Your task to perform on an android device: Open maps Image 0: 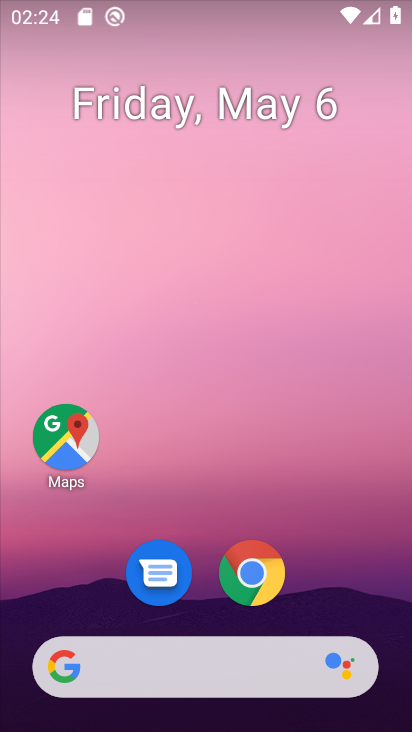
Step 0: drag from (353, 612) to (362, 306)
Your task to perform on an android device: Open maps Image 1: 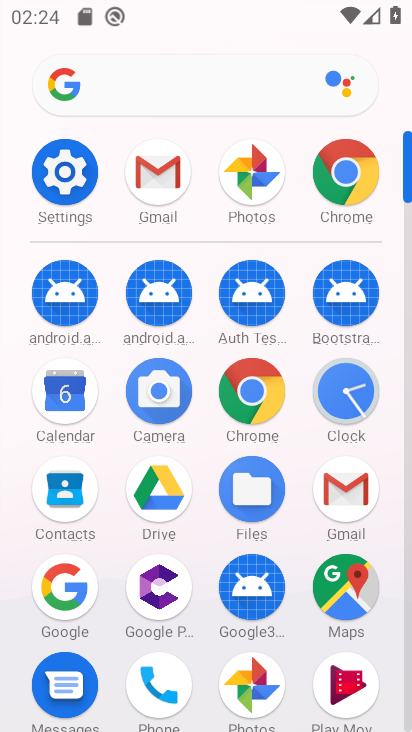
Step 1: click (353, 582)
Your task to perform on an android device: Open maps Image 2: 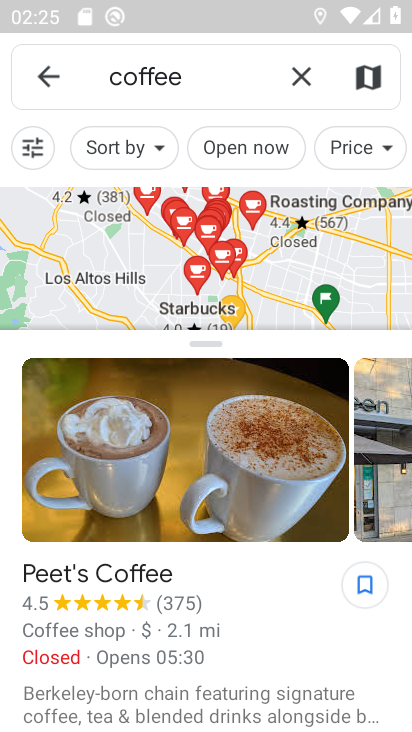
Step 2: task complete